Your task to perform on an android device: Open calendar and show me the first week of next month Image 0: 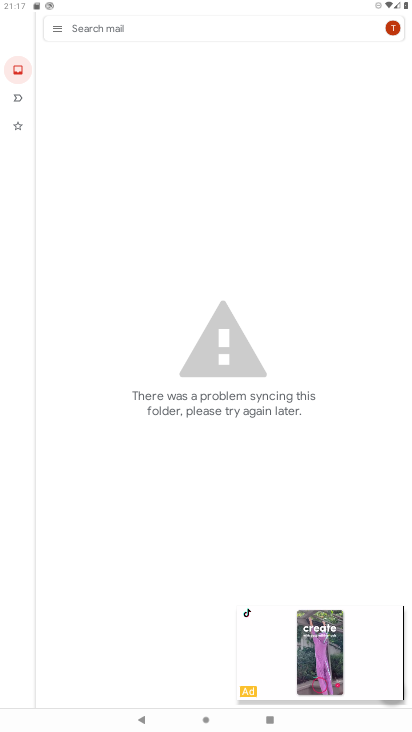
Step 0: press home button
Your task to perform on an android device: Open calendar and show me the first week of next month Image 1: 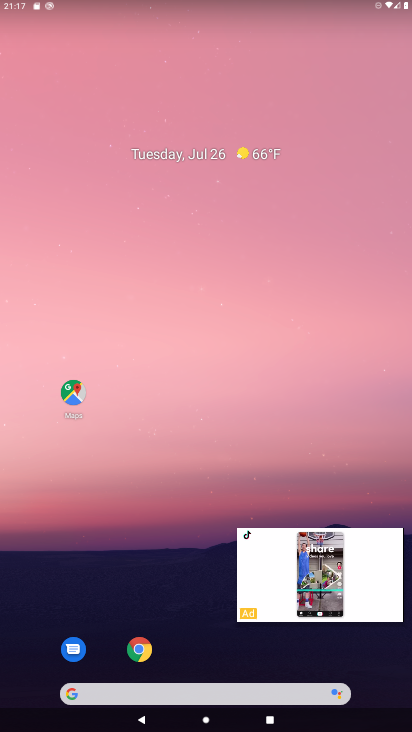
Step 1: drag from (89, 706) to (180, 195)
Your task to perform on an android device: Open calendar and show me the first week of next month Image 2: 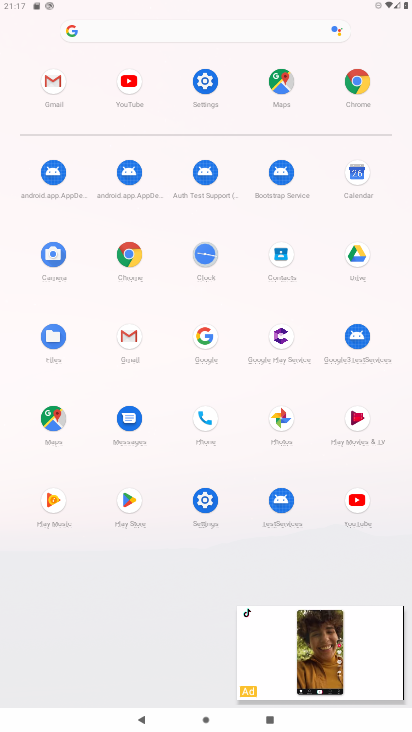
Step 2: click (324, 662)
Your task to perform on an android device: Open calendar and show me the first week of next month Image 3: 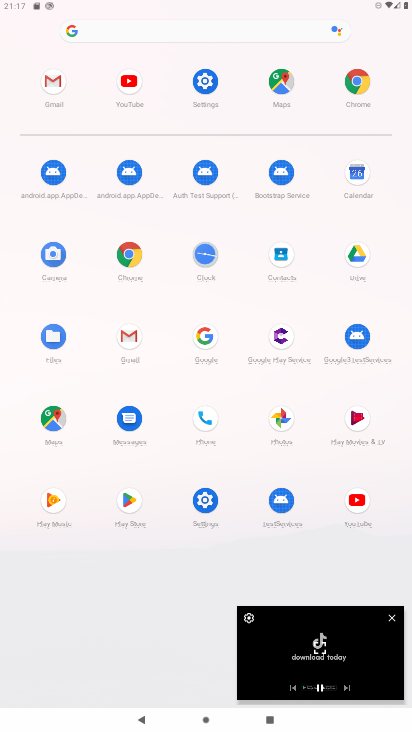
Step 3: click (393, 619)
Your task to perform on an android device: Open calendar and show me the first week of next month Image 4: 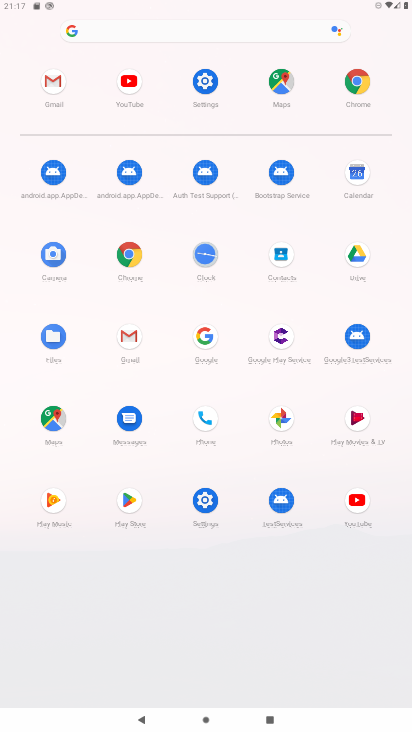
Step 4: click (365, 172)
Your task to perform on an android device: Open calendar and show me the first week of next month Image 5: 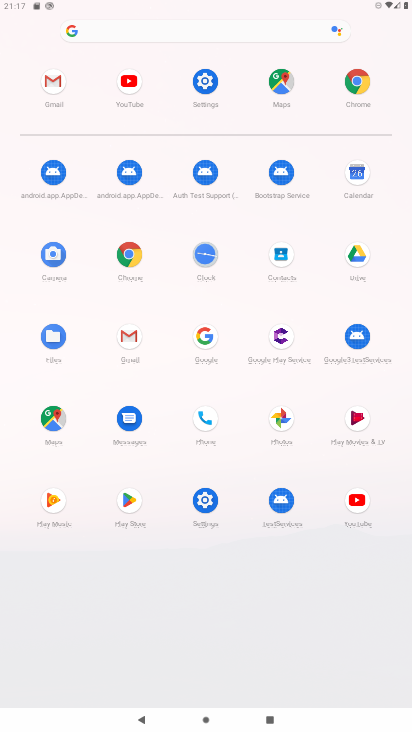
Step 5: click (365, 172)
Your task to perform on an android device: Open calendar and show me the first week of next month Image 6: 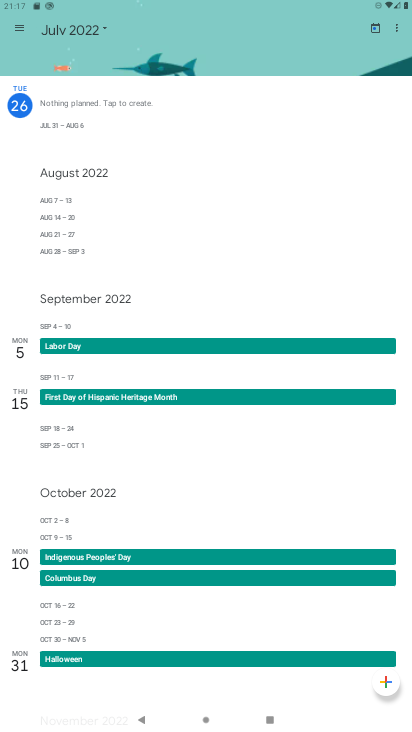
Step 6: click (86, 30)
Your task to perform on an android device: Open calendar and show me the first week of next month Image 7: 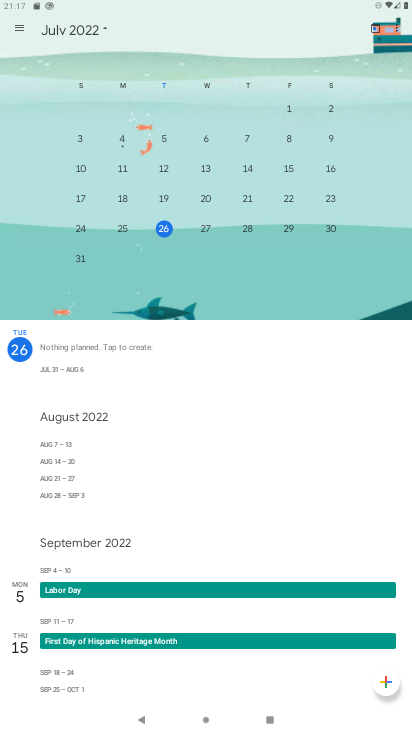
Step 7: task complete